Your task to perform on an android device: Clear the shopping cart on target.com. Search for usb-a to usb-b on target.com, select the first entry, add it to the cart, then select checkout. Image 0: 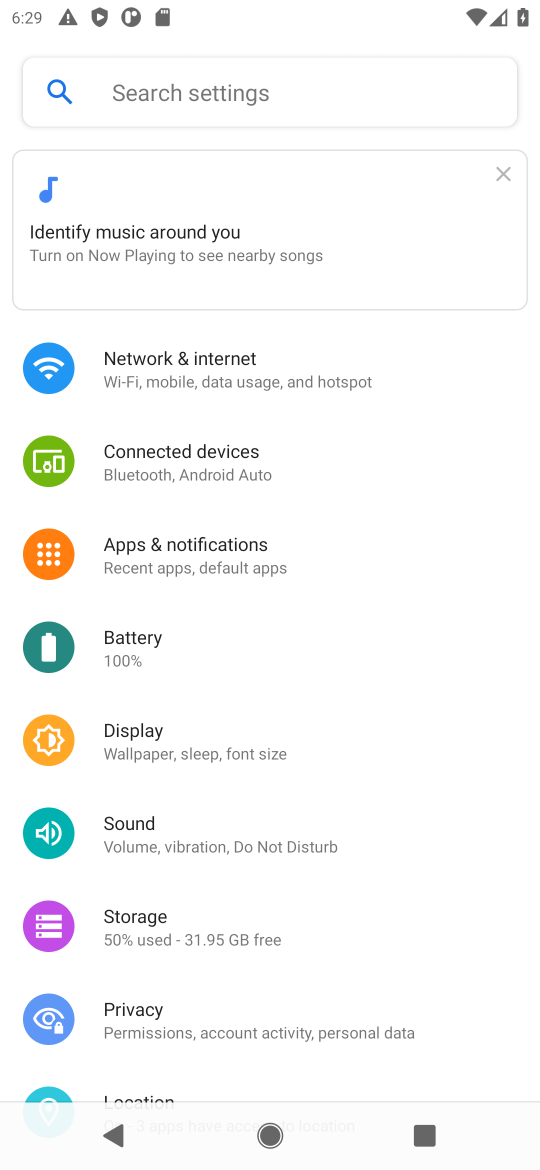
Step 0: press home button
Your task to perform on an android device: Clear the shopping cart on target.com. Search for usb-a to usb-b on target.com, select the first entry, add it to the cart, then select checkout. Image 1: 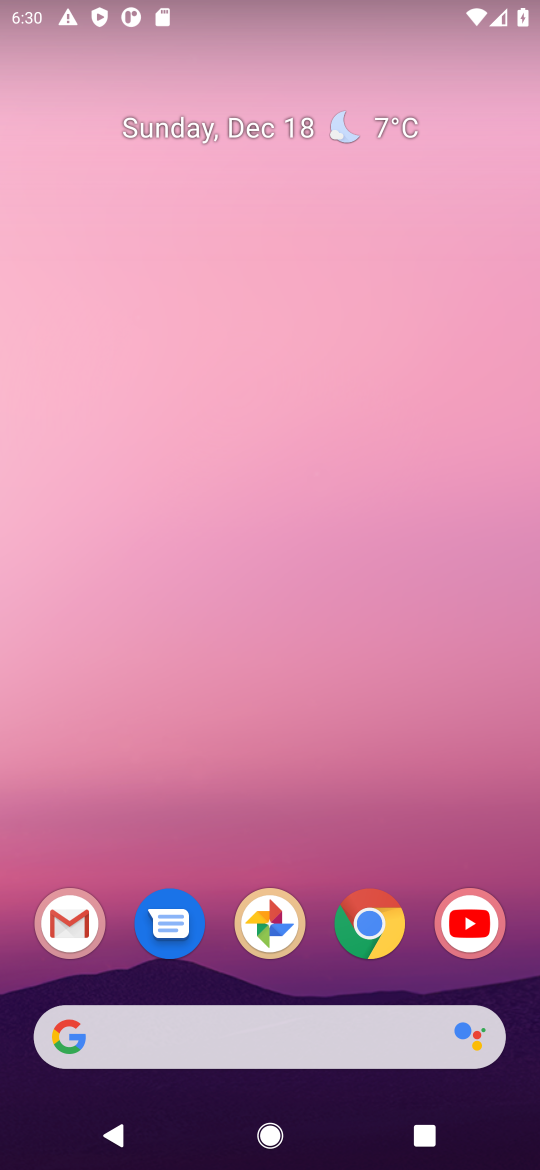
Step 1: click (132, 1053)
Your task to perform on an android device: Clear the shopping cart on target.com. Search for usb-a to usb-b on target.com, select the first entry, add it to the cart, then select checkout. Image 2: 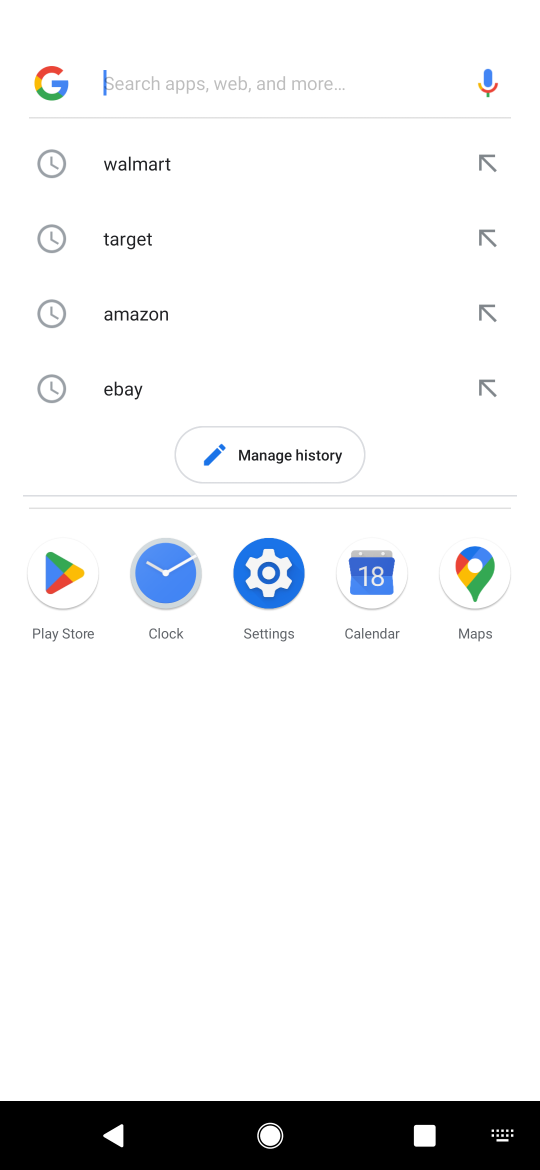
Step 2: type "target.com"
Your task to perform on an android device: Clear the shopping cart on target.com. Search for usb-a to usb-b on target.com, select the first entry, add it to the cart, then select checkout. Image 3: 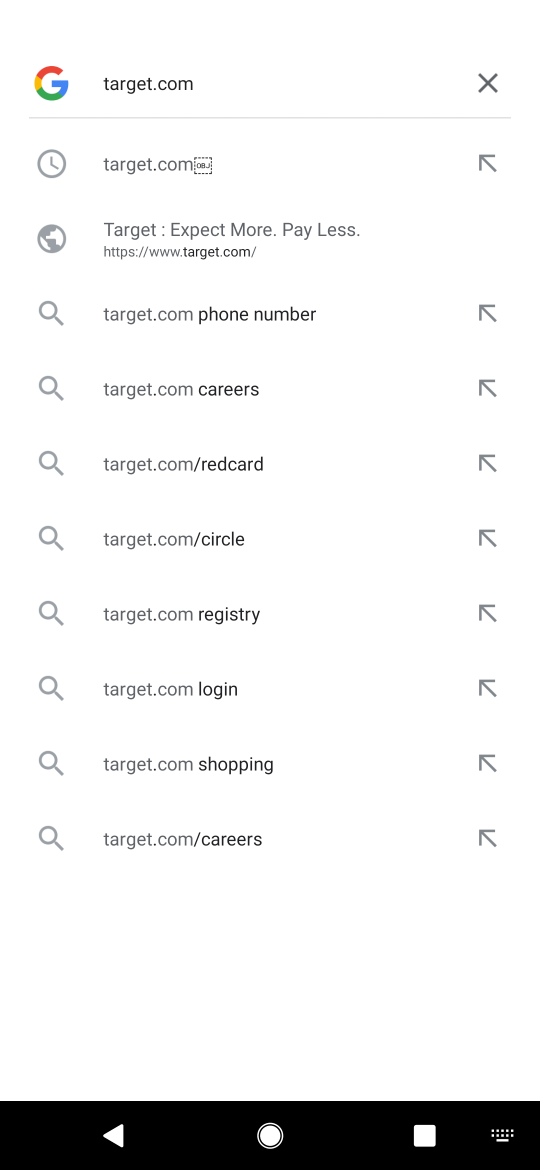
Step 3: press enter
Your task to perform on an android device: Clear the shopping cart on target.com. Search for usb-a to usb-b on target.com, select the first entry, add it to the cart, then select checkout. Image 4: 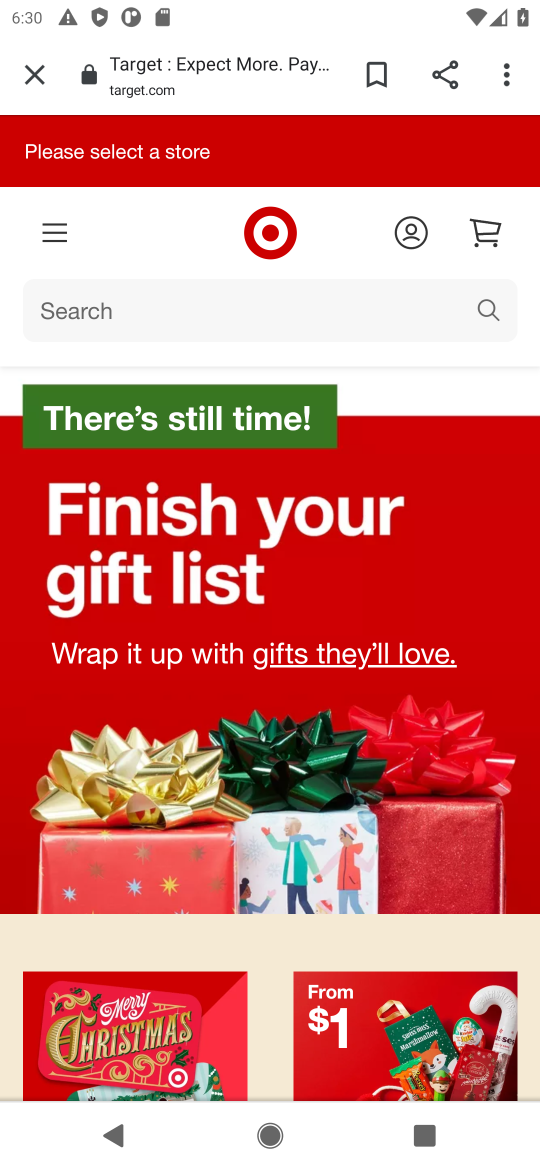
Step 4: click (479, 218)
Your task to perform on an android device: Clear the shopping cart on target.com. Search for usb-a to usb-b on target.com, select the first entry, add it to the cart, then select checkout. Image 5: 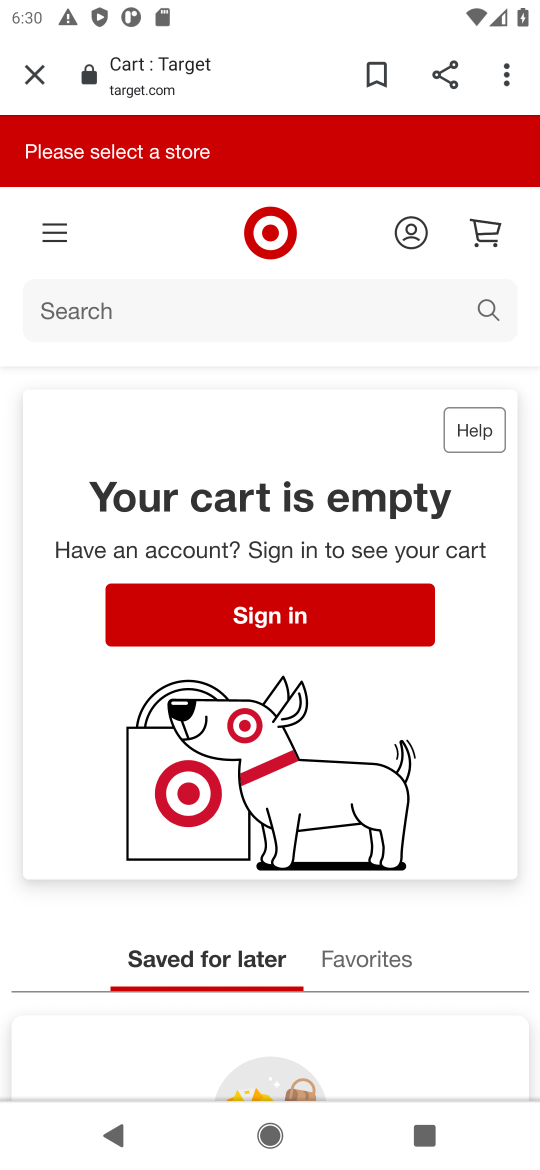
Step 5: click (200, 319)
Your task to perform on an android device: Clear the shopping cart on target.com. Search for usb-a to usb-b on target.com, select the first entry, add it to the cart, then select checkout. Image 6: 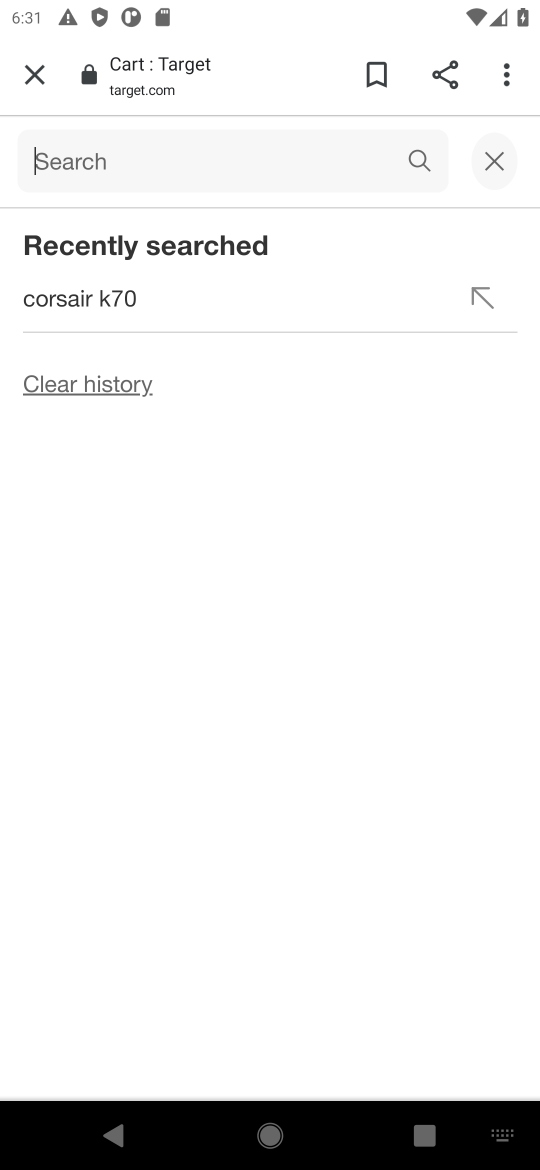
Step 6: type "usb-a to usb-b"
Your task to perform on an android device: Clear the shopping cart on target.com. Search for usb-a to usb-b on target.com, select the first entry, add it to the cart, then select checkout. Image 7: 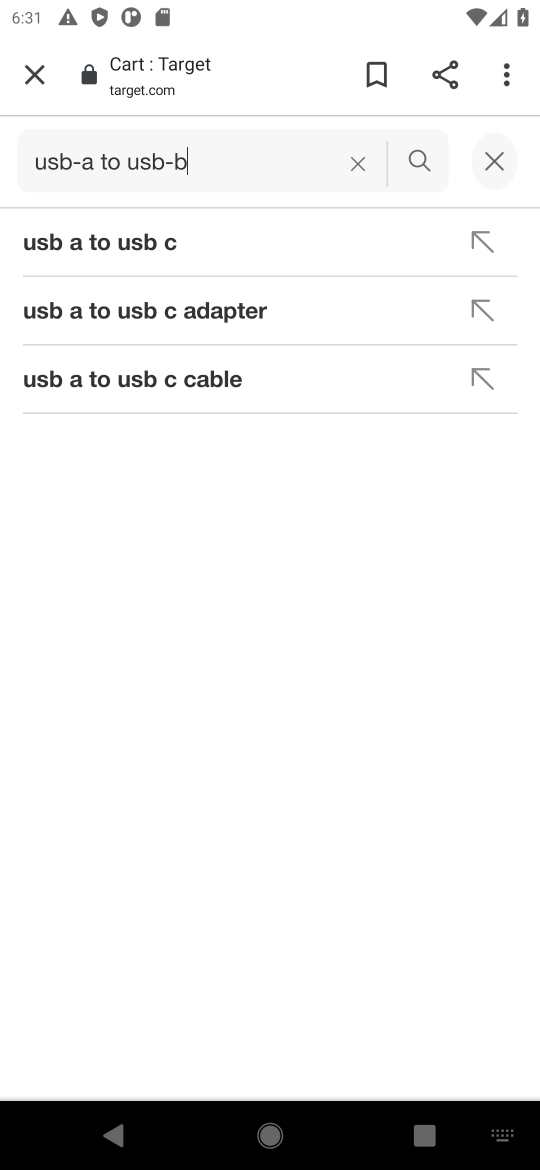
Step 7: press enter
Your task to perform on an android device: Clear the shopping cart on target.com. Search for usb-a to usb-b on target.com, select the first entry, add it to the cart, then select checkout. Image 8: 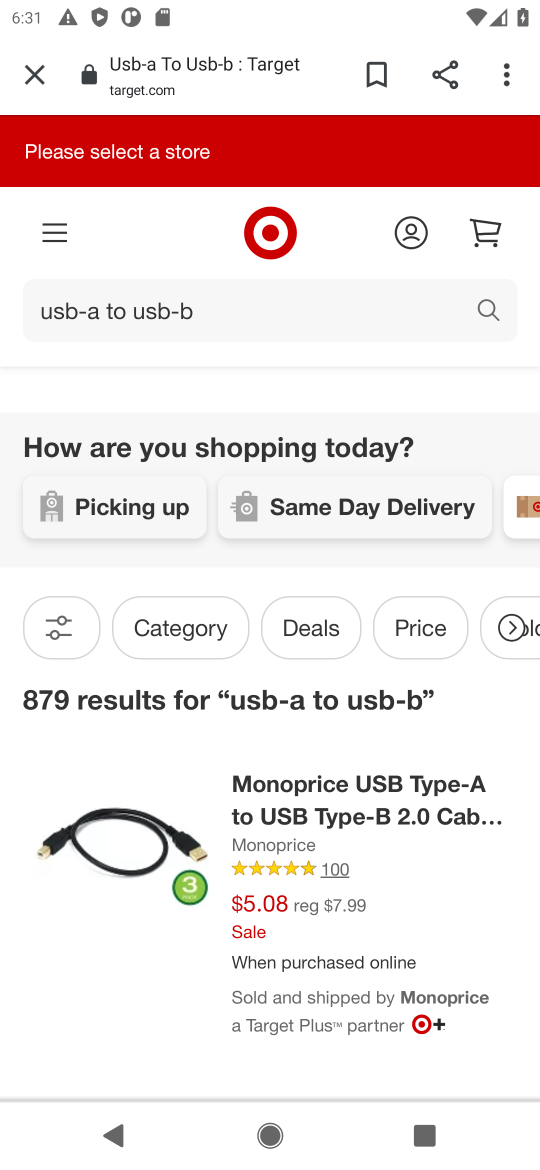
Step 8: drag from (328, 985) to (353, 645)
Your task to perform on an android device: Clear the shopping cart on target.com. Search for usb-a to usb-b on target.com, select the first entry, add it to the cart, then select checkout. Image 9: 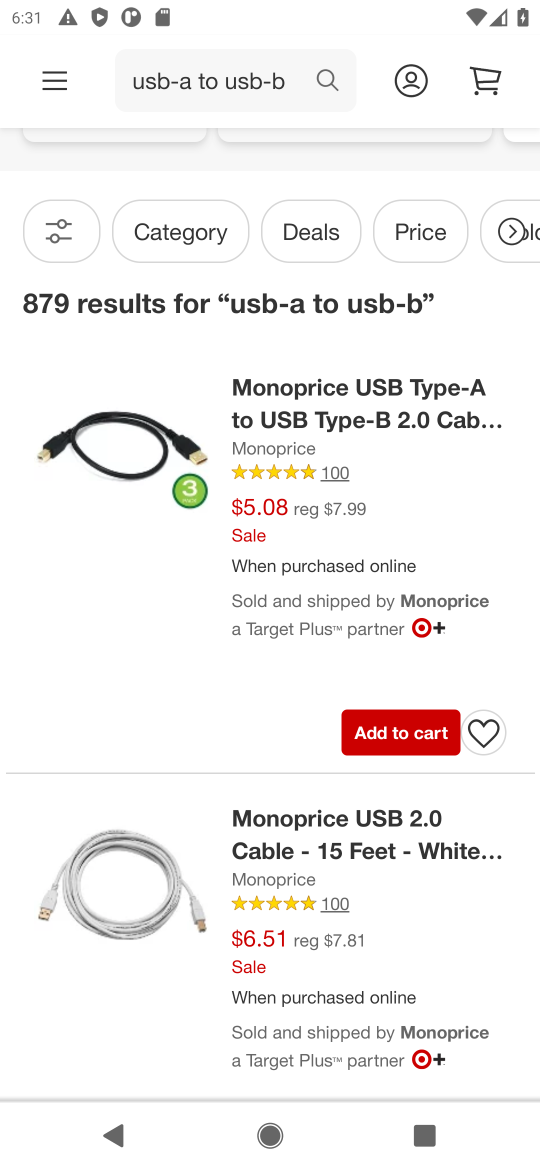
Step 9: click (360, 726)
Your task to perform on an android device: Clear the shopping cart on target.com. Search for usb-a to usb-b on target.com, select the first entry, add it to the cart, then select checkout. Image 10: 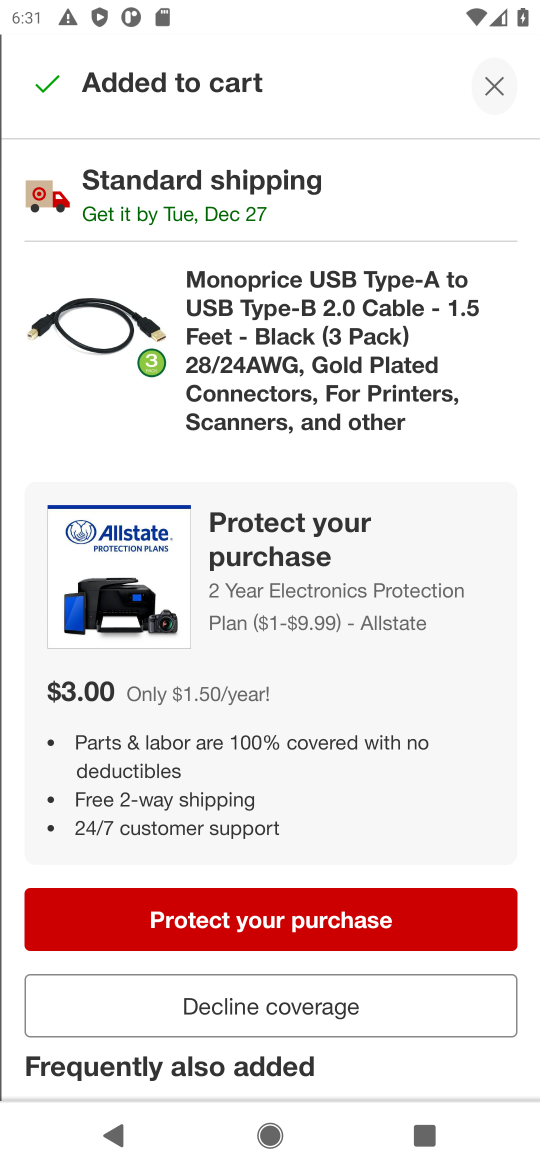
Step 10: task complete